Your task to perform on an android device: open app "TextNow: Call + Text Unlimited" (install if not already installed) Image 0: 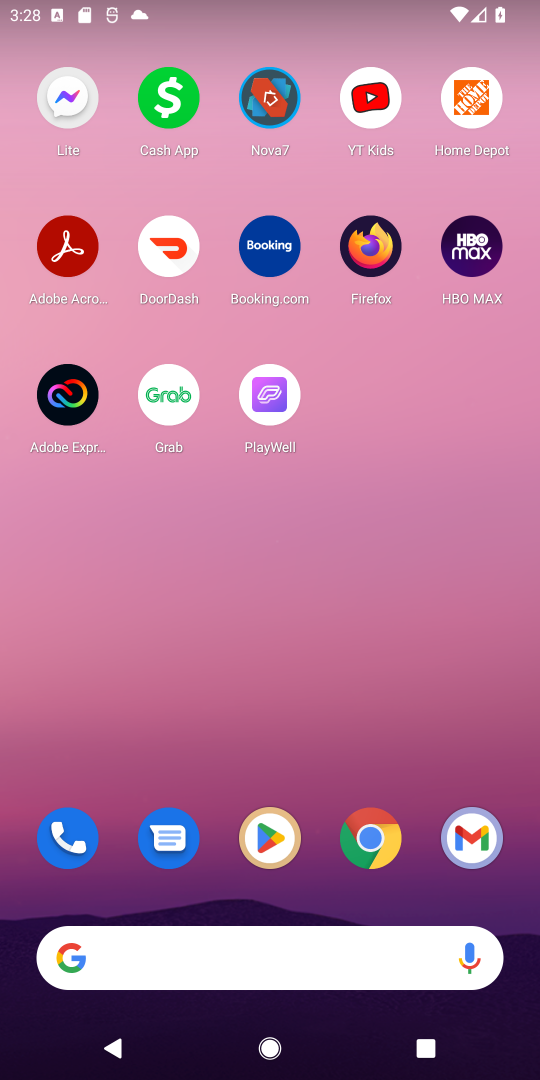
Step 0: click (260, 840)
Your task to perform on an android device: open app "TextNow: Call + Text Unlimited" (install if not already installed) Image 1: 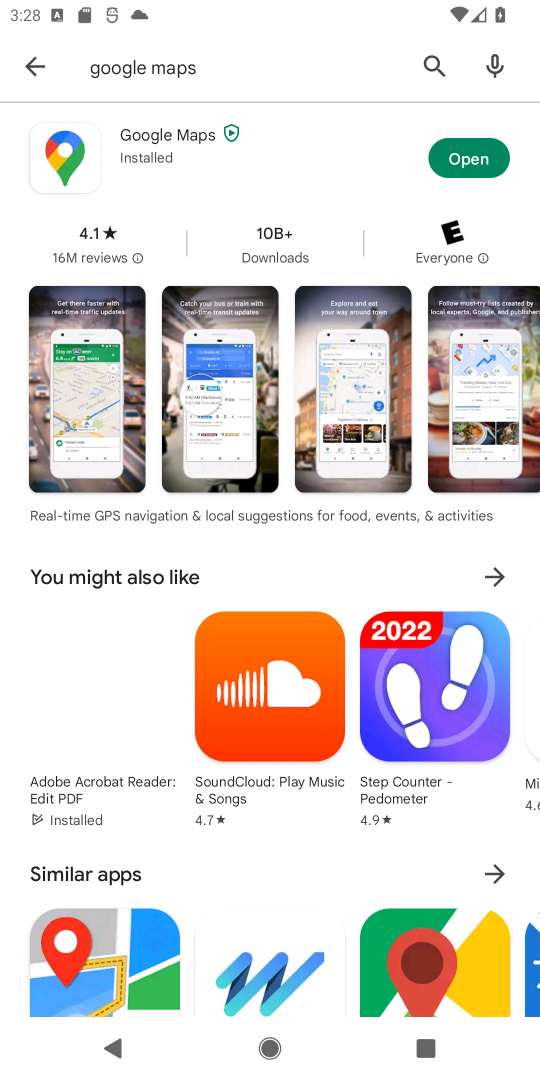
Step 1: click (16, 64)
Your task to perform on an android device: open app "TextNow: Call + Text Unlimited" (install if not already installed) Image 2: 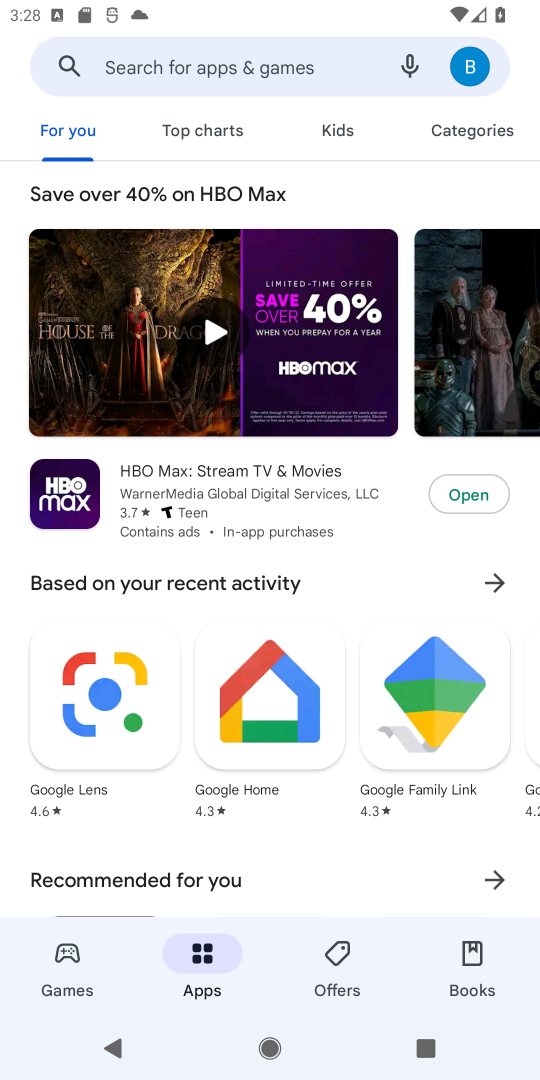
Step 2: click (199, 67)
Your task to perform on an android device: open app "TextNow: Call + Text Unlimited" (install if not already installed) Image 3: 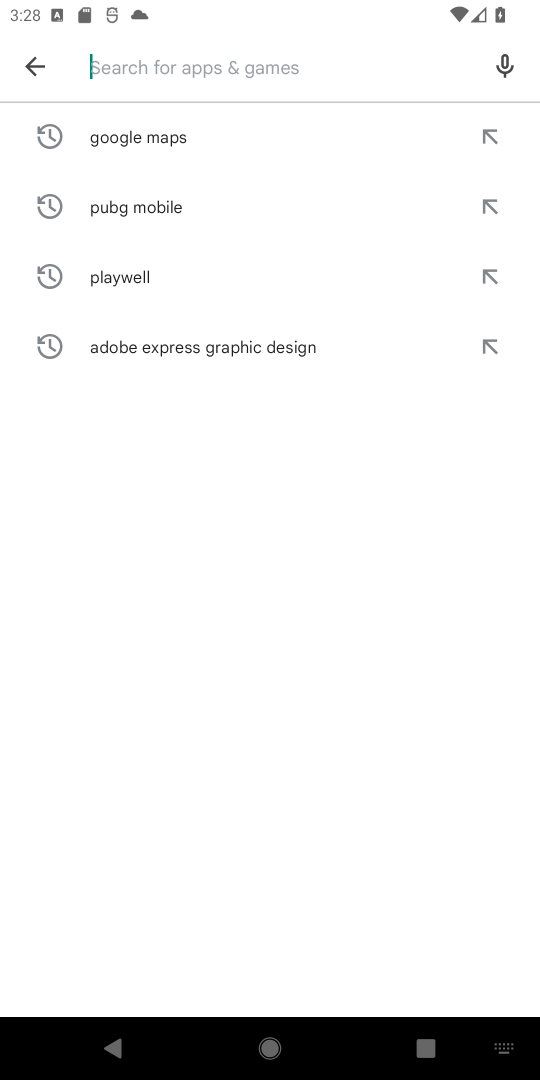
Step 3: type "TextNow"
Your task to perform on an android device: open app "TextNow: Call + Text Unlimited" (install if not already installed) Image 4: 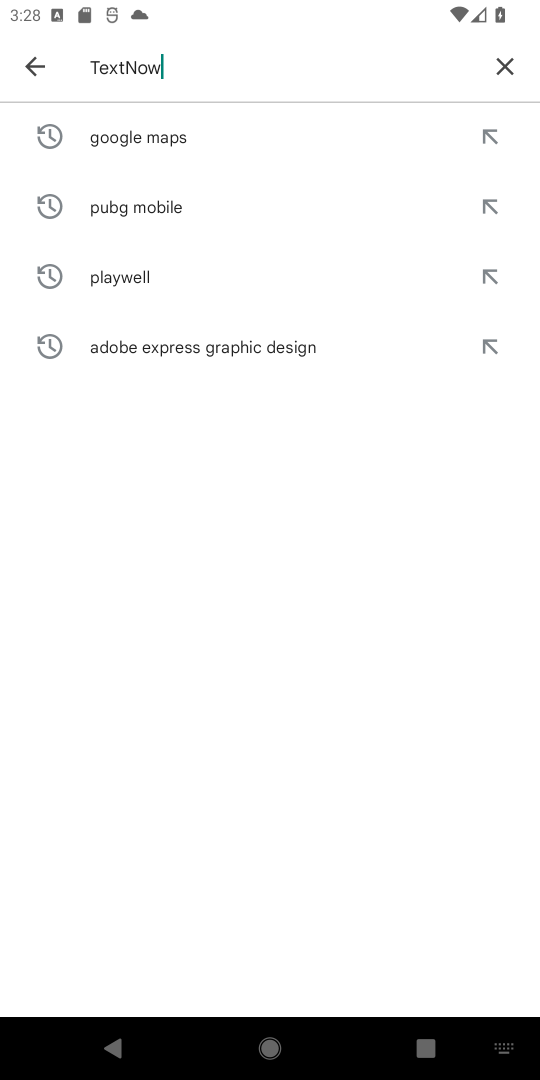
Step 4: type ""
Your task to perform on an android device: open app "TextNow: Call + Text Unlimited" (install if not already installed) Image 5: 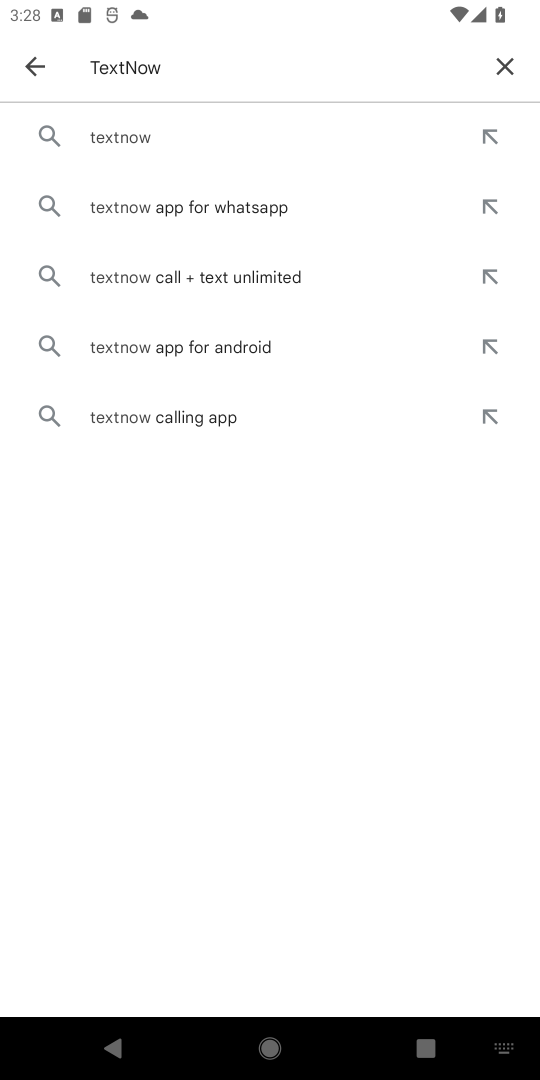
Step 5: click (138, 140)
Your task to perform on an android device: open app "TextNow: Call + Text Unlimited" (install if not already installed) Image 6: 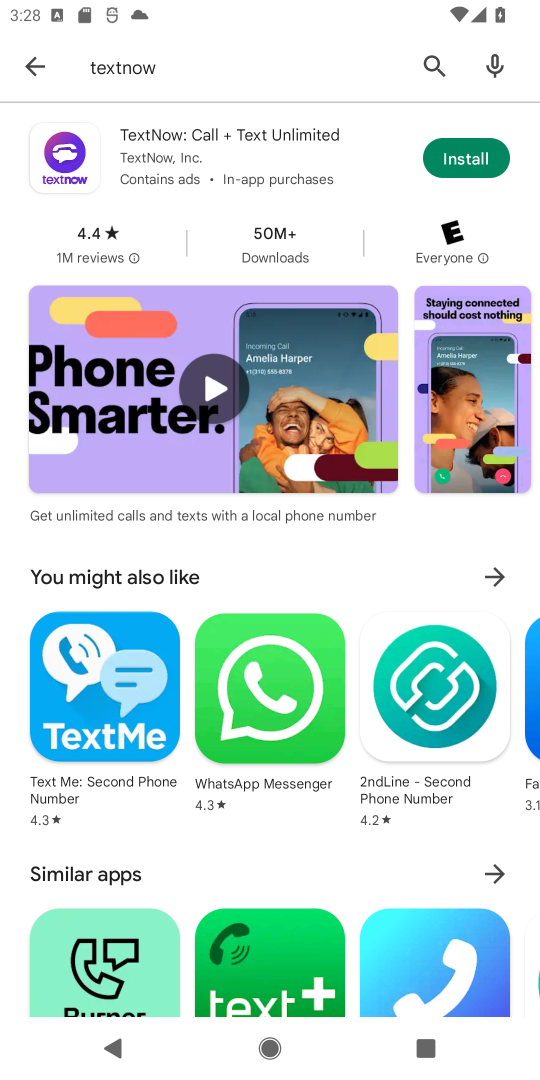
Step 6: click (451, 166)
Your task to perform on an android device: open app "TextNow: Call + Text Unlimited" (install if not already installed) Image 7: 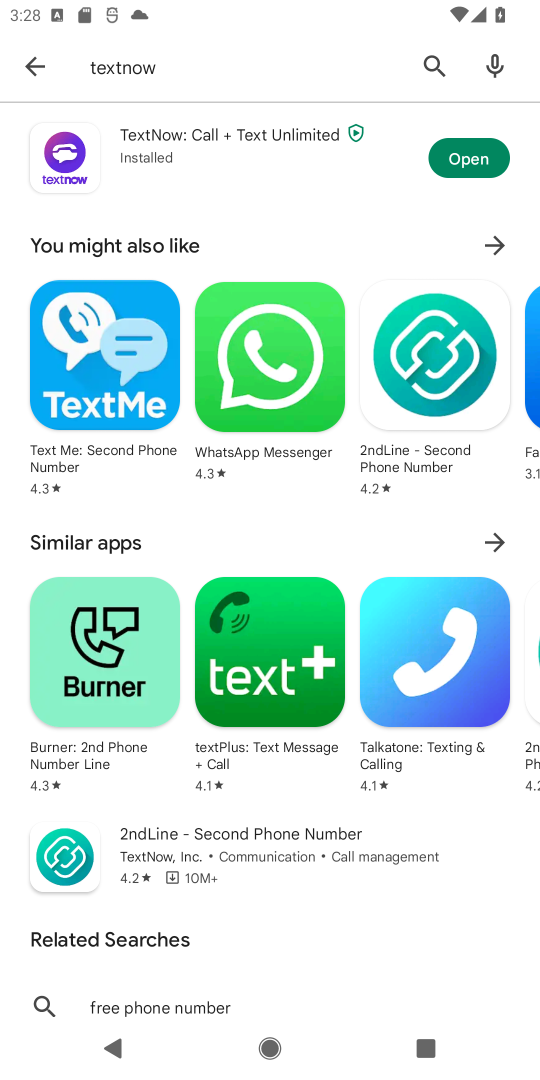
Step 7: click (444, 179)
Your task to perform on an android device: open app "TextNow: Call + Text Unlimited" (install if not already installed) Image 8: 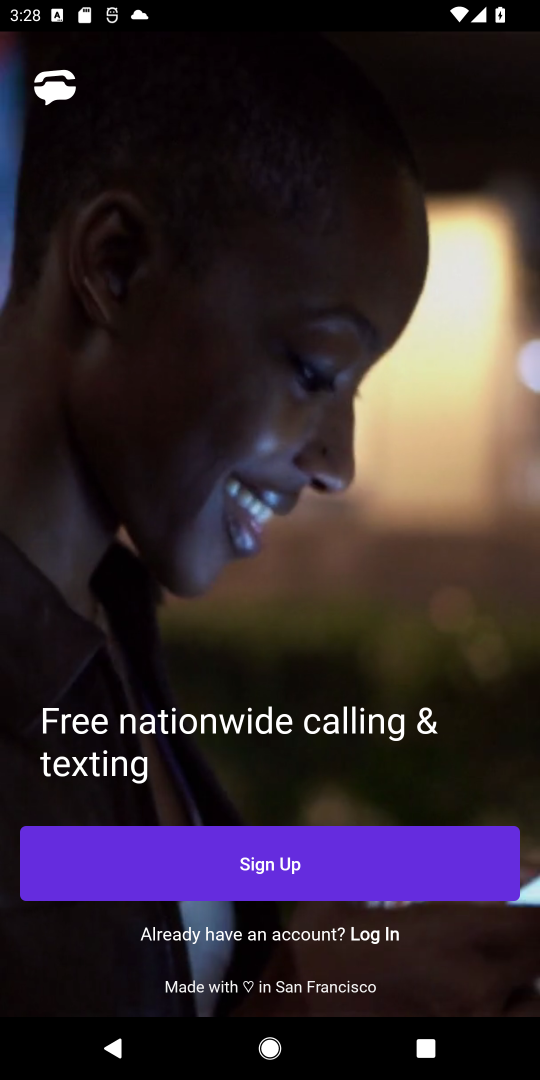
Step 8: task complete